Your task to perform on an android device: Is it going to rain today? Image 0: 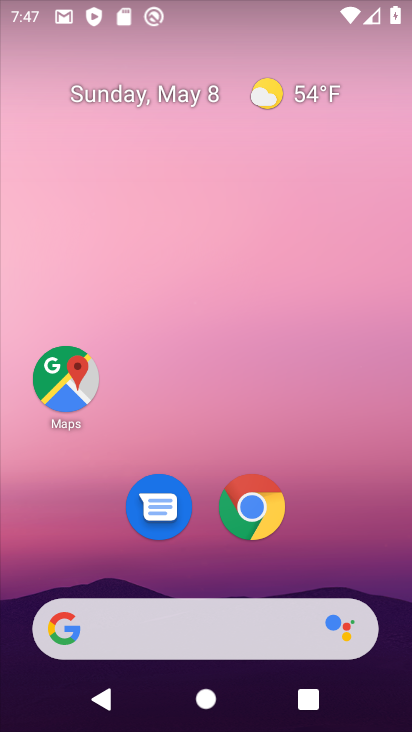
Step 0: click (264, 522)
Your task to perform on an android device: Is it going to rain today? Image 1: 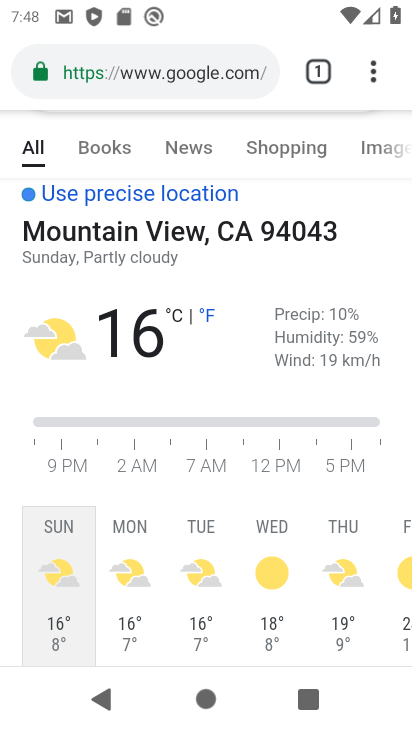
Step 1: click (181, 69)
Your task to perform on an android device: Is it going to rain today? Image 2: 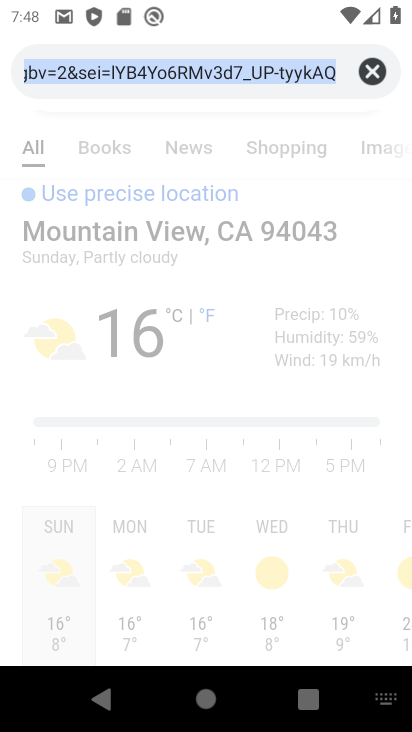
Step 2: click (374, 66)
Your task to perform on an android device: Is it going to rain today? Image 3: 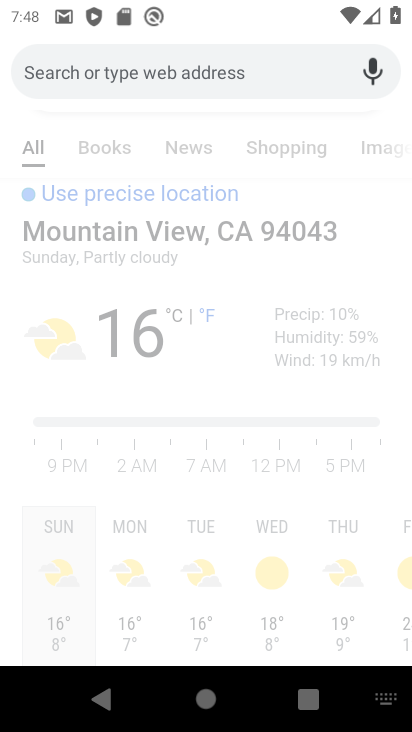
Step 3: drag from (300, 676) to (348, 716)
Your task to perform on an android device: Is it going to rain today? Image 4: 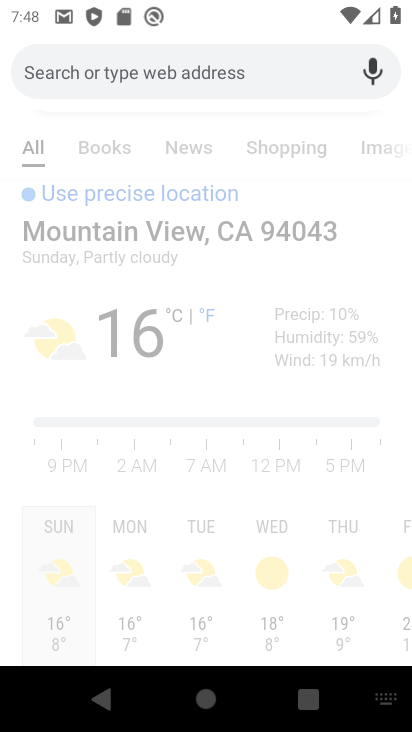
Step 4: click (226, 74)
Your task to perform on an android device: Is it going to rain today? Image 5: 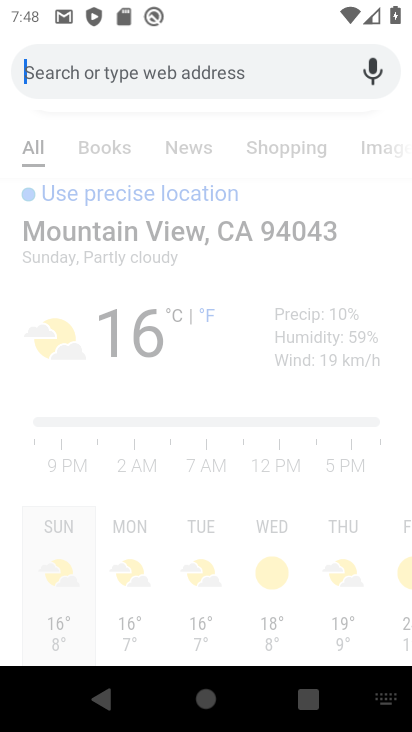
Step 5: type "Is it going to rain today?"
Your task to perform on an android device: Is it going to rain today? Image 6: 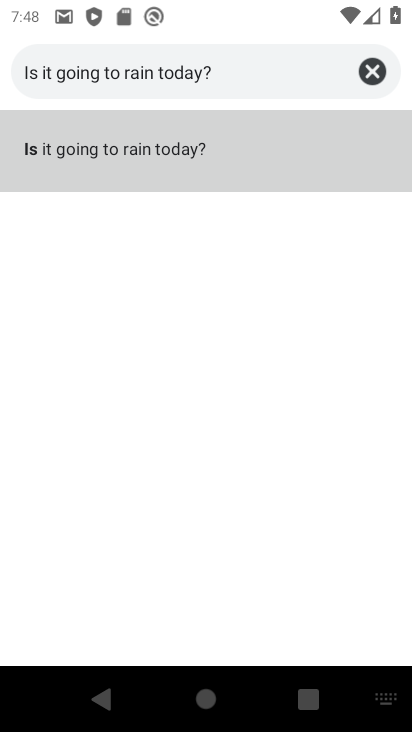
Step 6: click (170, 154)
Your task to perform on an android device: Is it going to rain today? Image 7: 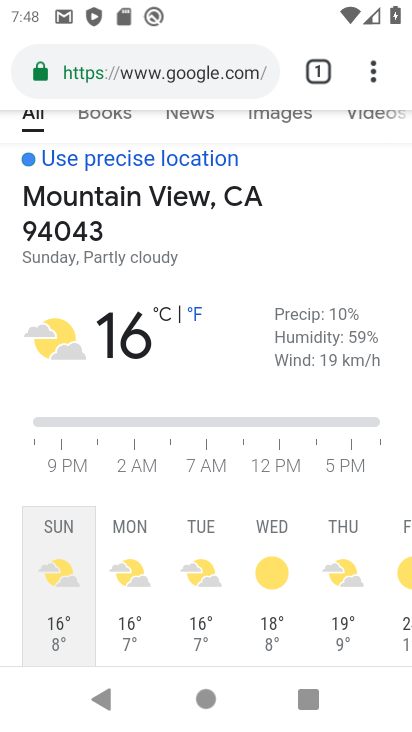
Step 7: click (141, 580)
Your task to perform on an android device: Is it going to rain today? Image 8: 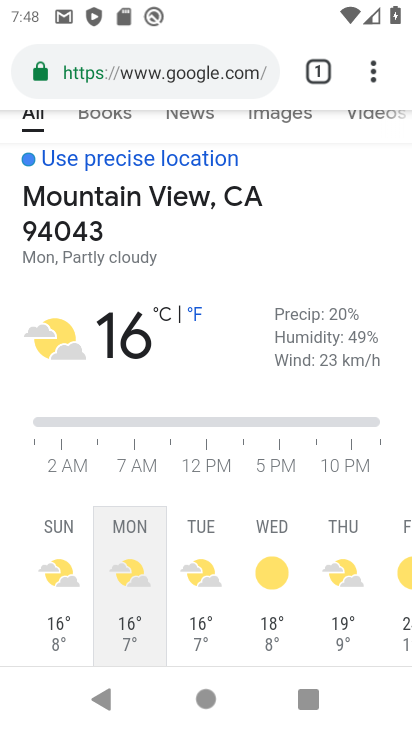
Step 8: task complete